Your task to perform on an android device: toggle javascript in the chrome app Image 0: 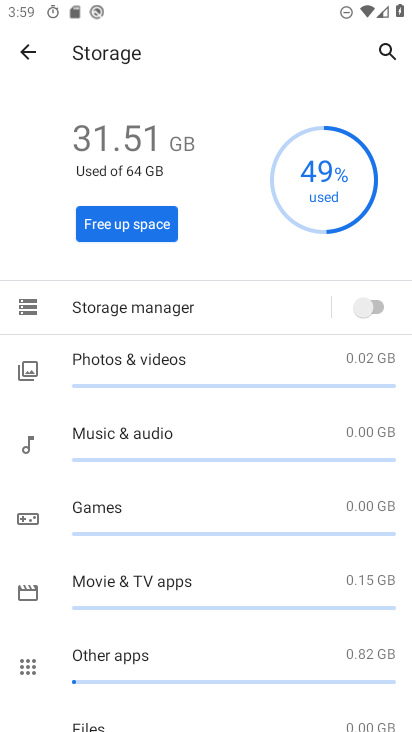
Step 0: press home button
Your task to perform on an android device: toggle javascript in the chrome app Image 1: 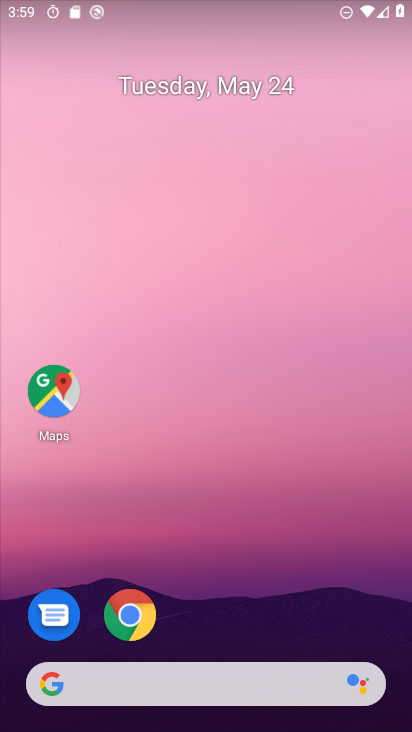
Step 1: drag from (311, 525) to (343, 122)
Your task to perform on an android device: toggle javascript in the chrome app Image 2: 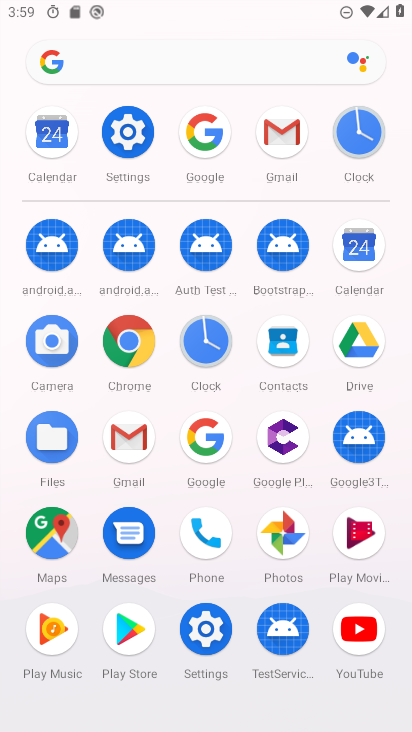
Step 2: click (139, 349)
Your task to perform on an android device: toggle javascript in the chrome app Image 3: 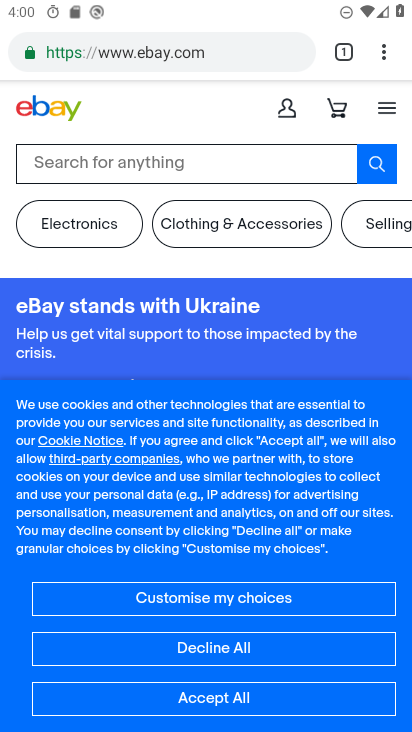
Step 3: click (381, 49)
Your task to perform on an android device: toggle javascript in the chrome app Image 4: 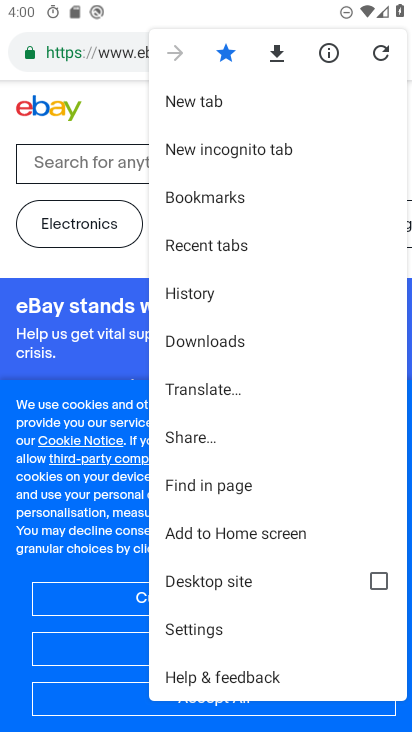
Step 4: click (213, 632)
Your task to perform on an android device: toggle javascript in the chrome app Image 5: 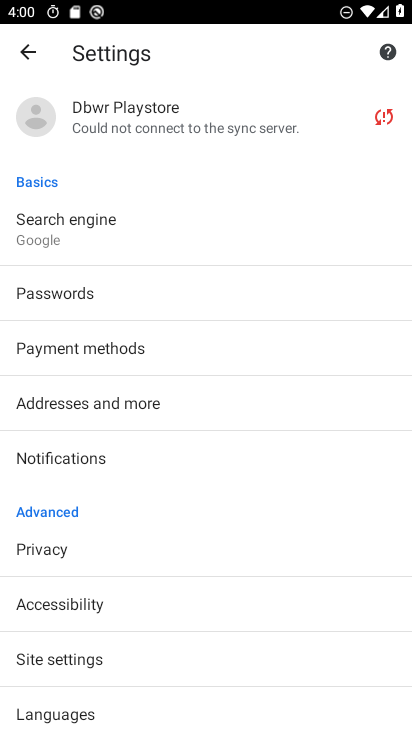
Step 5: drag from (145, 539) to (187, 281)
Your task to perform on an android device: toggle javascript in the chrome app Image 6: 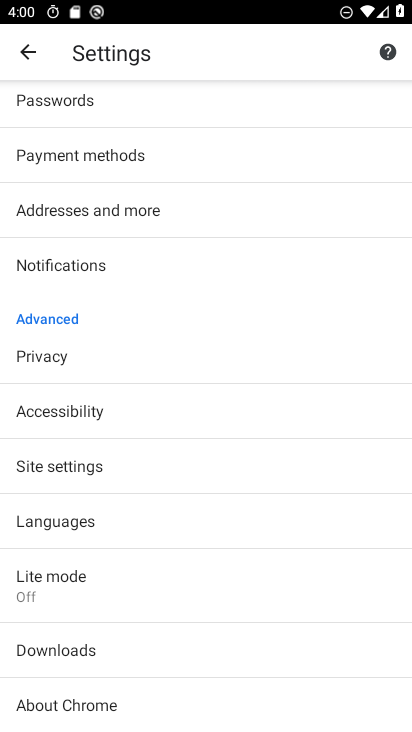
Step 6: click (96, 468)
Your task to perform on an android device: toggle javascript in the chrome app Image 7: 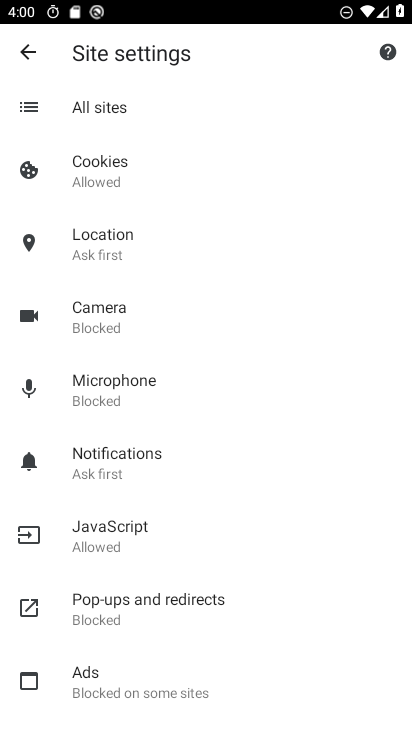
Step 7: click (139, 537)
Your task to perform on an android device: toggle javascript in the chrome app Image 8: 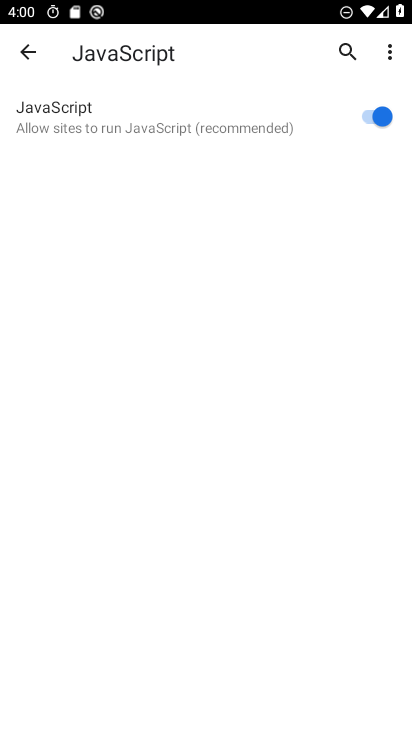
Step 8: click (354, 106)
Your task to perform on an android device: toggle javascript in the chrome app Image 9: 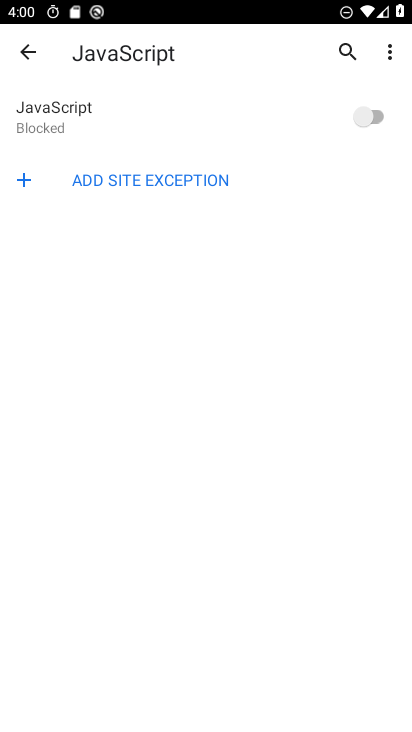
Step 9: task complete